Your task to perform on an android device: Open calendar and show me the fourth week of next month Image 0: 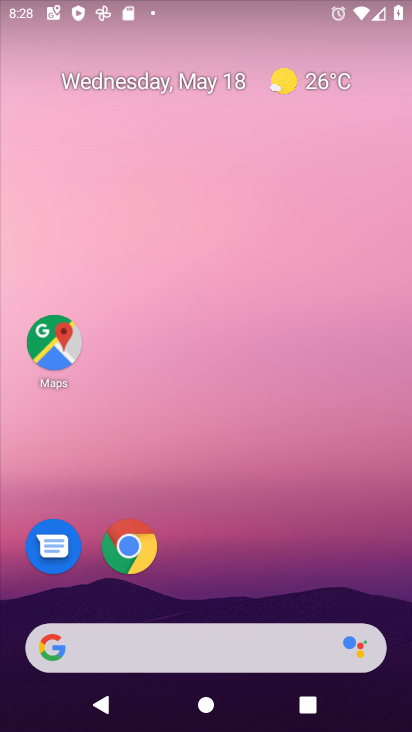
Step 0: drag from (370, 594) to (305, 78)
Your task to perform on an android device: Open calendar and show me the fourth week of next month Image 1: 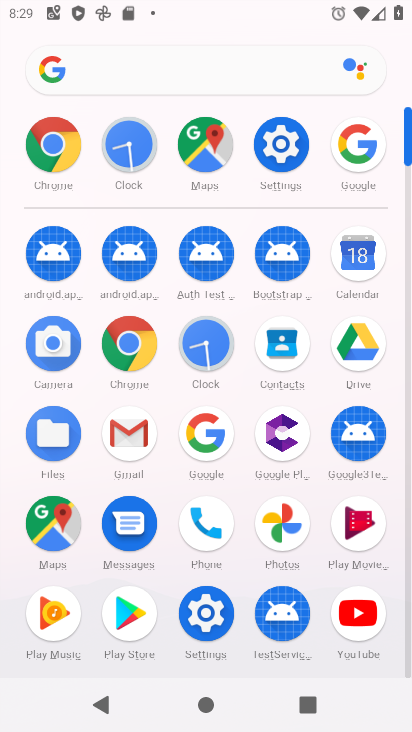
Step 1: click (353, 270)
Your task to perform on an android device: Open calendar and show me the fourth week of next month Image 2: 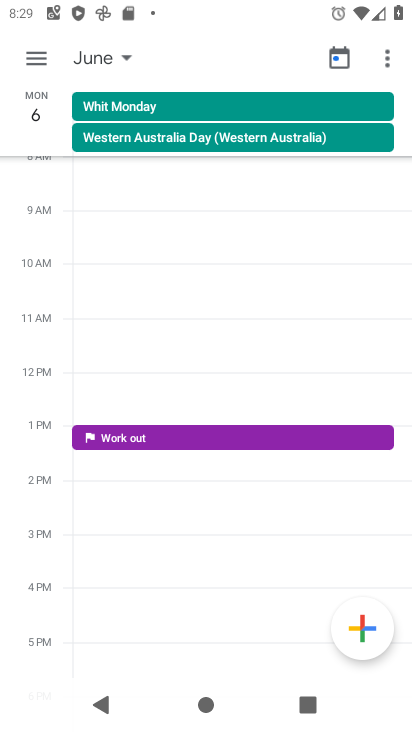
Step 2: click (107, 64)
Your task to perform on an android device: Open calendar and show me the fourth week of next month Image 3: 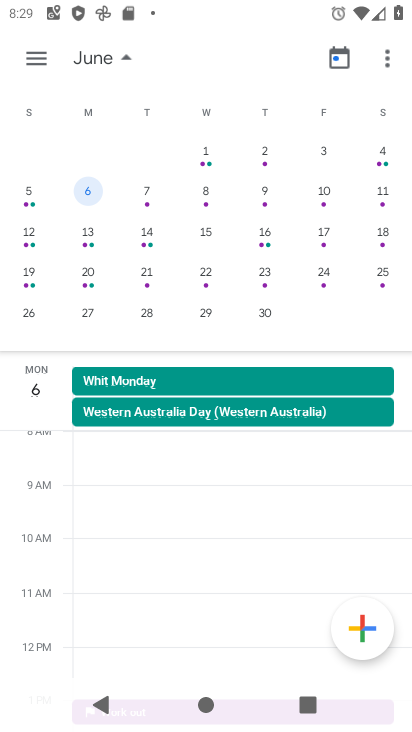
Step 3: drag from (387, 238) to (41, 228)
Your task to perform on an android device: Open calendar and show me the fourth week of next month Image 4: 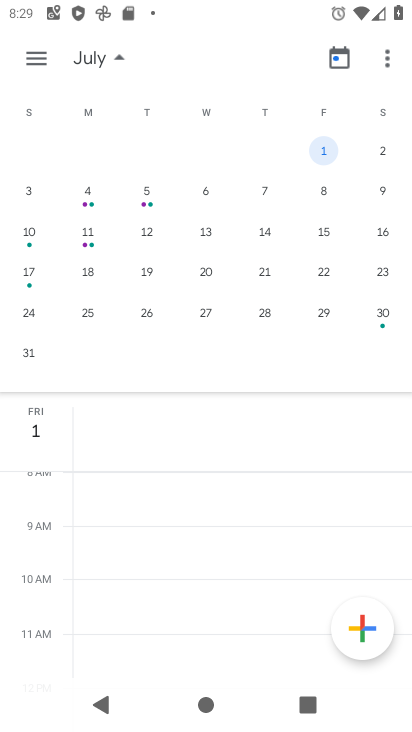
Step 4: click (368, 313)
Your task to perform on an android device: Open calendar and show me the fourth week of next month Image 5: 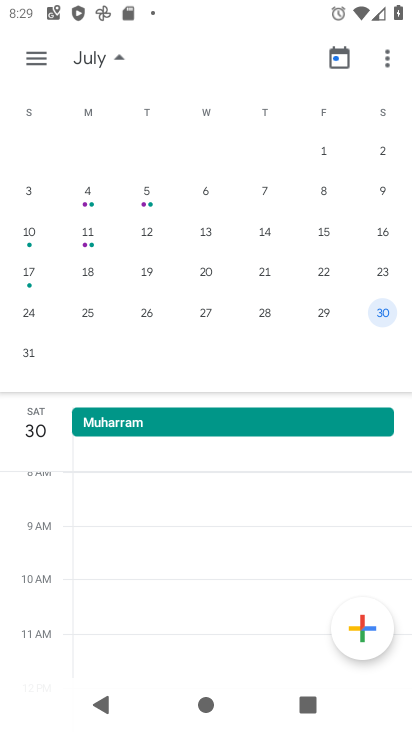
Step 5: task complete